Your task to perform on an android device: Turn off the flashlight Image 0: 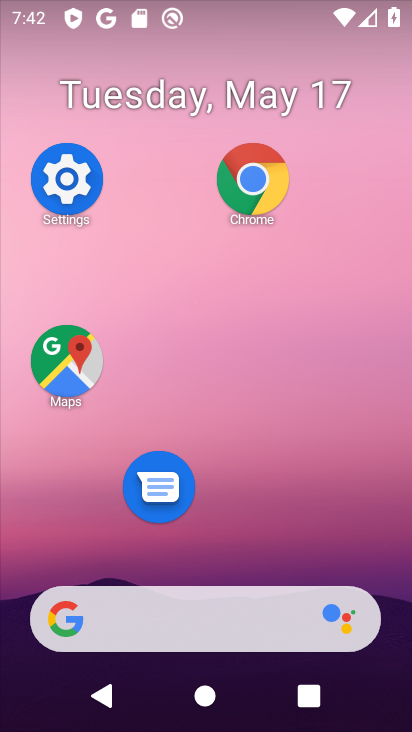
Step 0: drag from (258, 2) to (243, 355)
Your task to perform on an android device: Turn off the flashlight Image 1: 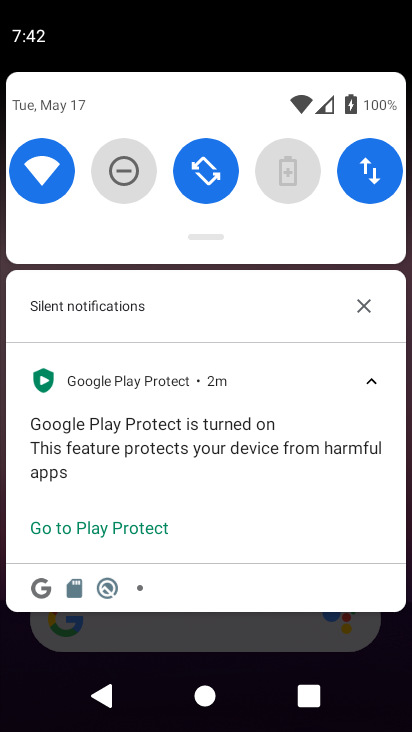
Step 1: task complete